Your task to perform on an android device: open a bookmark in the chrome app Image 0: 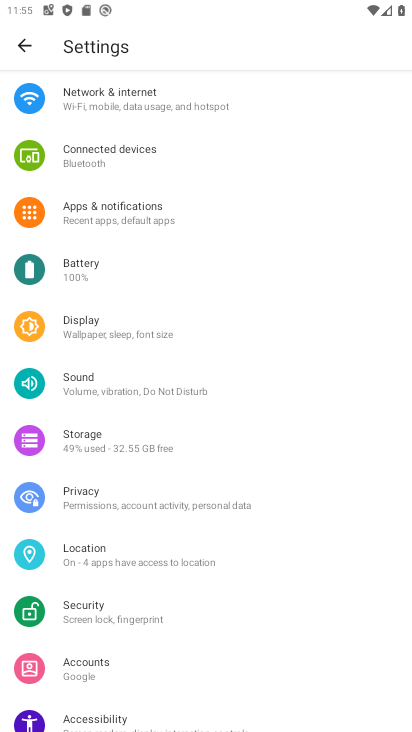
Step 0: press home button
Your task to perform on an android device: open a bookmark in the chrome app Image 1: 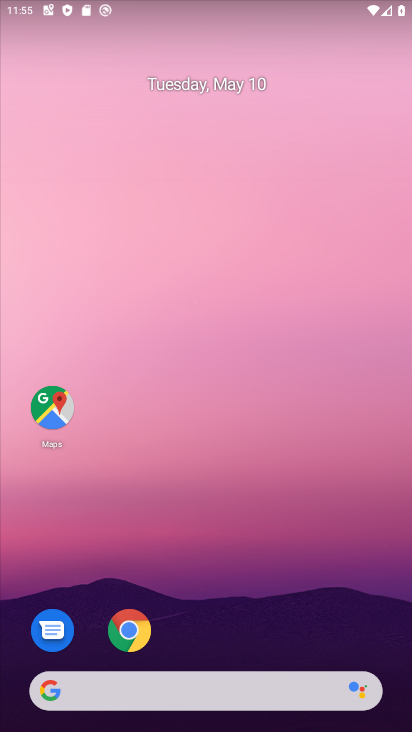
Step 1: click (128, 632)
Your task to perform on an android device: open a bookmark in the chrome app Image 2: 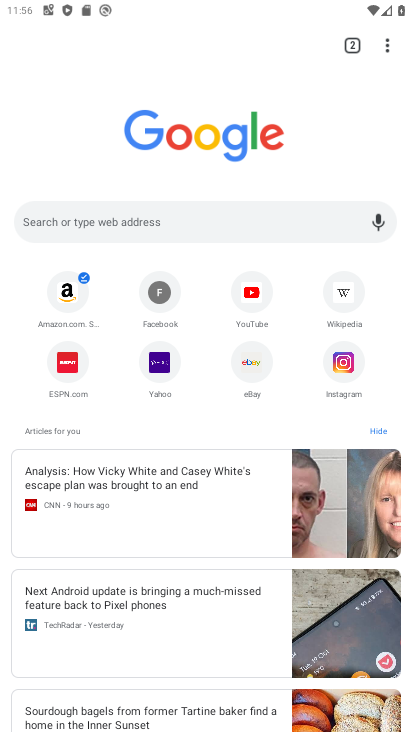
Step 2: drag from (390, 48) to (231, 171)
Your task to perform on an android device: open a bookmark in the chrome app Image 3: 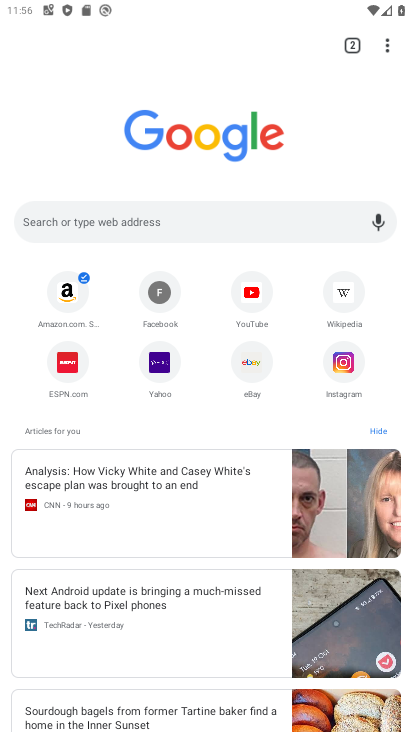
Step 3: click (224, 171)
Your task to perform on an android device: open a bookmark in the chrome app Image 4: 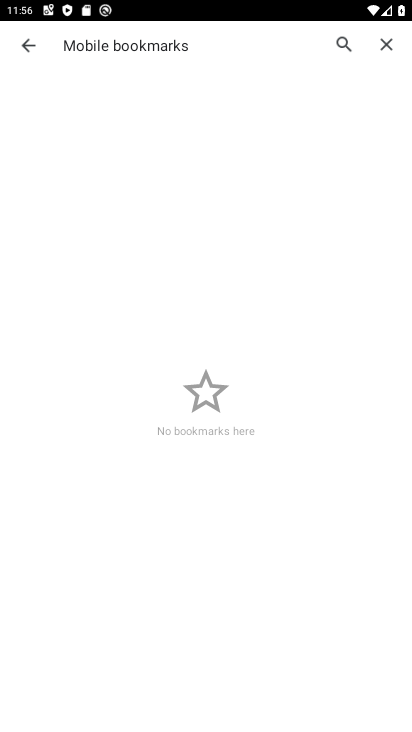
Step 4: task complete